Your task to perform on an android device: turn on wifi Image 0: 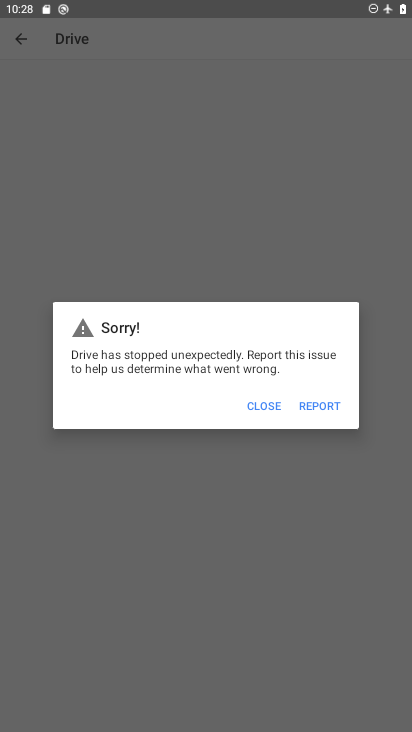
Step 0: press home button
Your task to perform on an android device: turn on wifi Image 1: 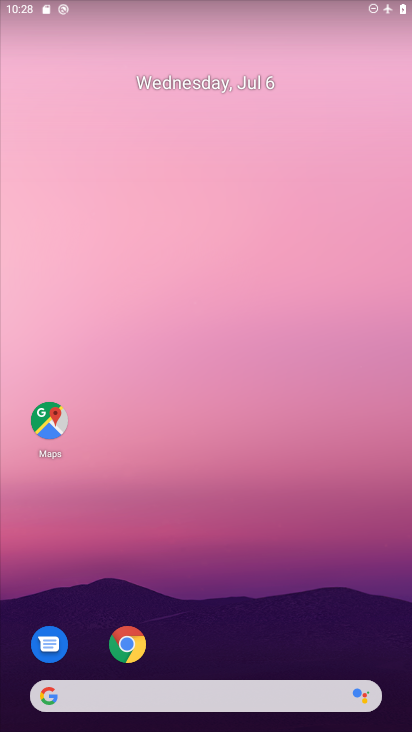
Step 1: drag from (221, 633) to (199, 94)
Your task to perform on an android device: turn on wifi Image 2: 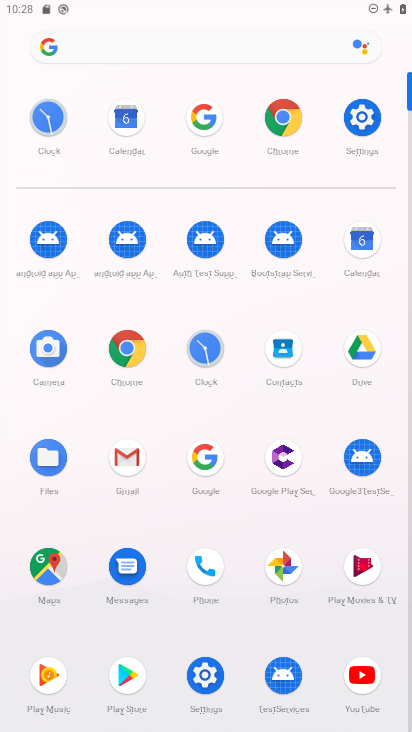
Step 2: click (372, 132)
Your task to perform on an android device: turn on wifi Image 3: 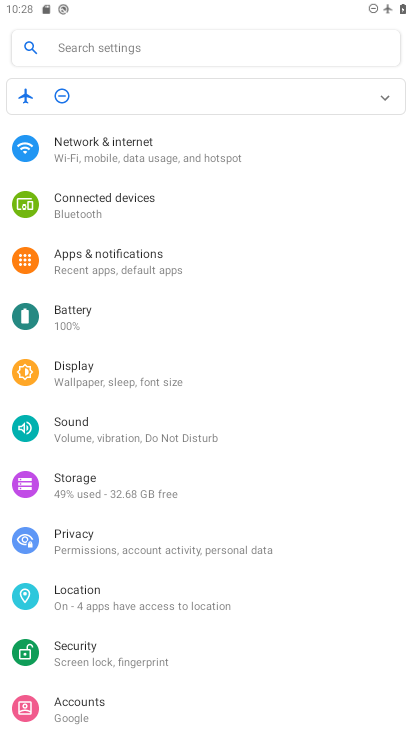
Step 3: click (179, 147)
Your task to perform on an android device: turn on wifi Image 4: 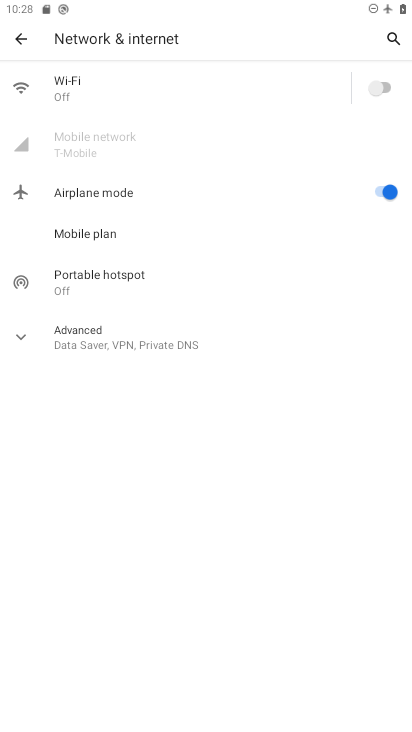
Step 4: click (381, 75)
Your task to perform on an android device: turn on wifi Image 5: 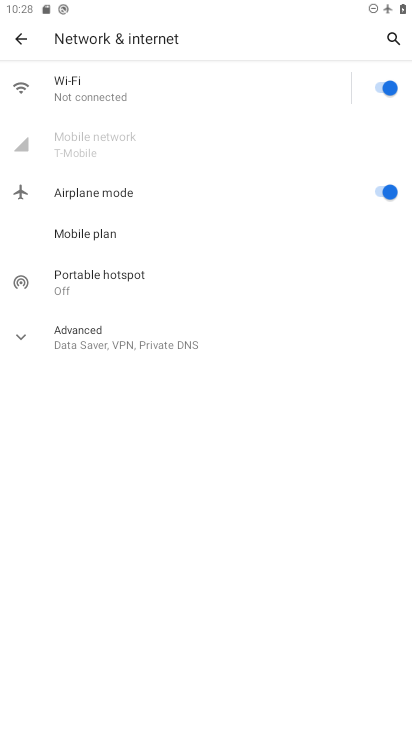
Step 5: task complete